Your task to perform on an android device: Open privacy settings Image 0: 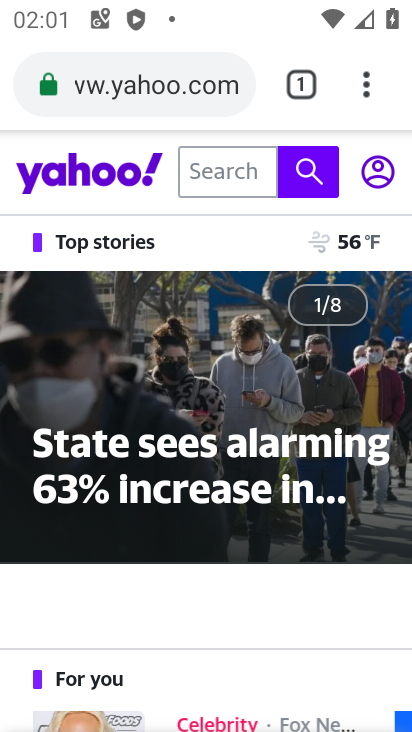
Step 0: press home button
Your task to perform on an android device: Open privacy settings Image 1: 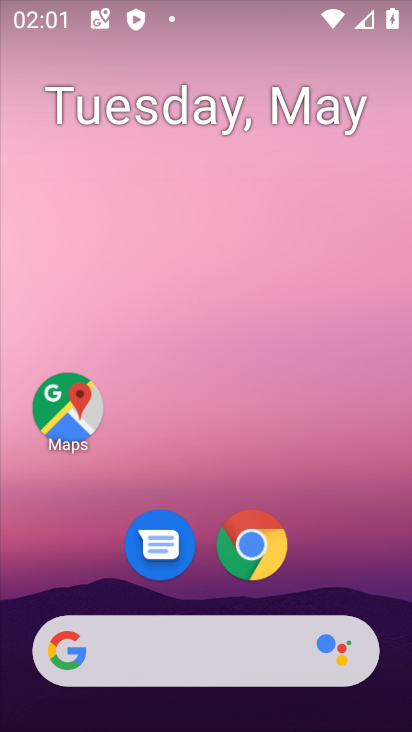
Step 1: drag from (408, 618) to (326, 57)
Your task to perform on an android device: Open privacy settings Image 2: 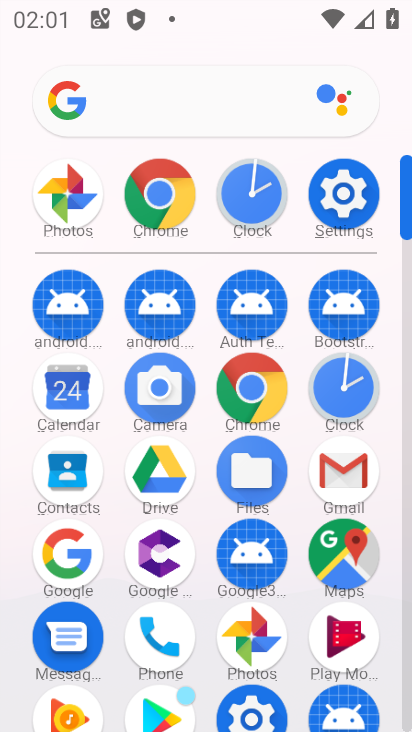
Step 2: click (410, 718)
Your task to perform on an android device: Open privacy settings Image 3: 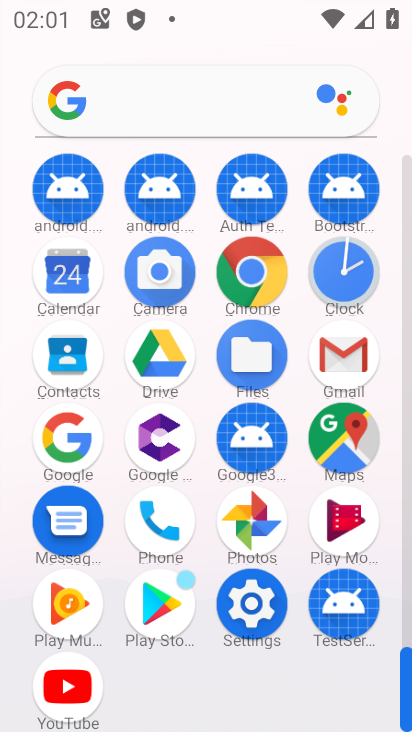
Step 3: click (253, 605)
Your task to perform on an android device: Open privacy settings Image 4: 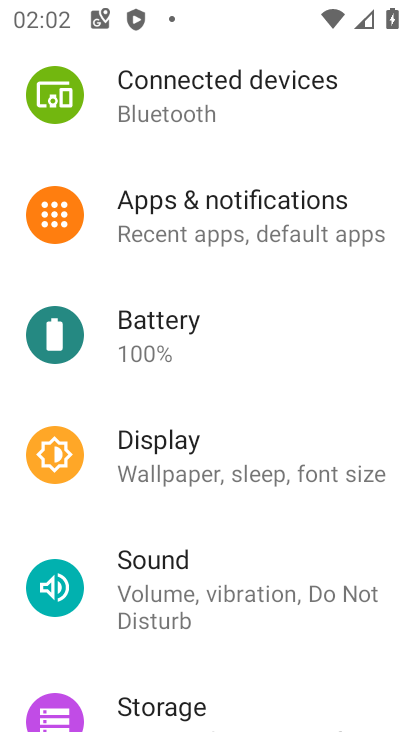
Step 4: drag from (244, 649) to (284, 298)
Your task to perform on an android device: Open privacy settings Image 5: 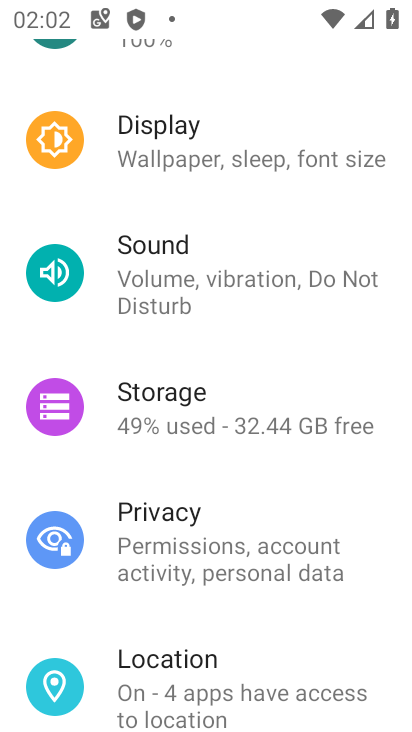
Step 5: click (182, 536)
Your task to perform on an android device: Open privacy settings Image 6: 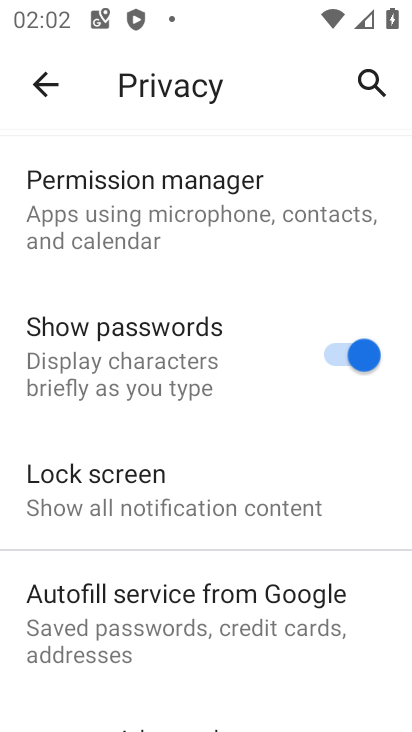
Step 6: drag from (263, 593) to (212, 171)
Your task to perform on an android device: Open privacy settings Image 7: 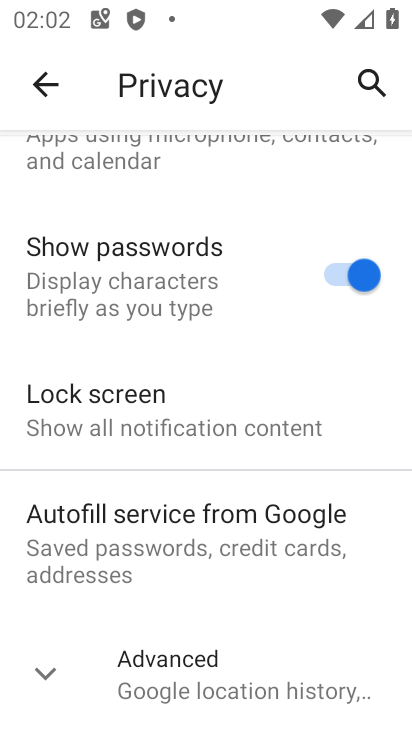
Step 7: click (47, 673)
Your task to perform on an android device: Open privacy settings Image 8: 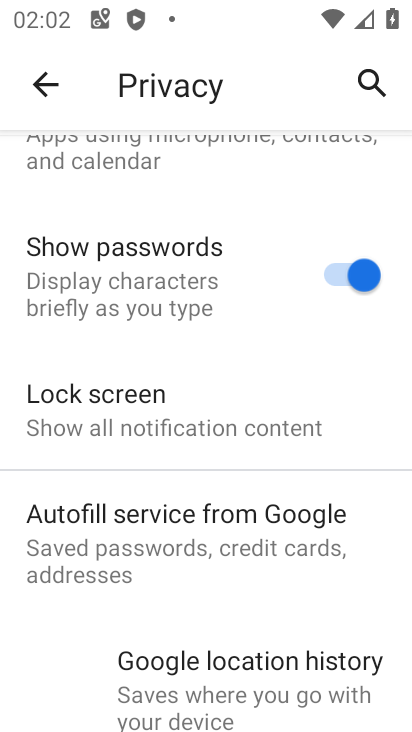
Step 8: task complete